Your task to perform on an android device: Open Google Chrome and open the bookmarks view Image 0: 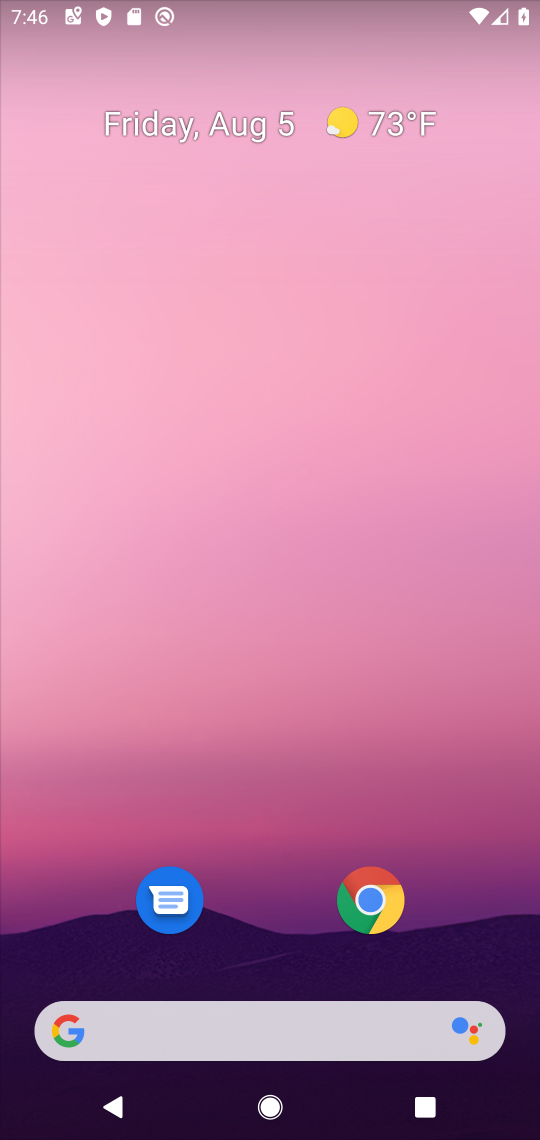
Step 0: click (363, 908)
Your task to perform on an android device: Open Google Chrome and open the bookmarks view Image 1: 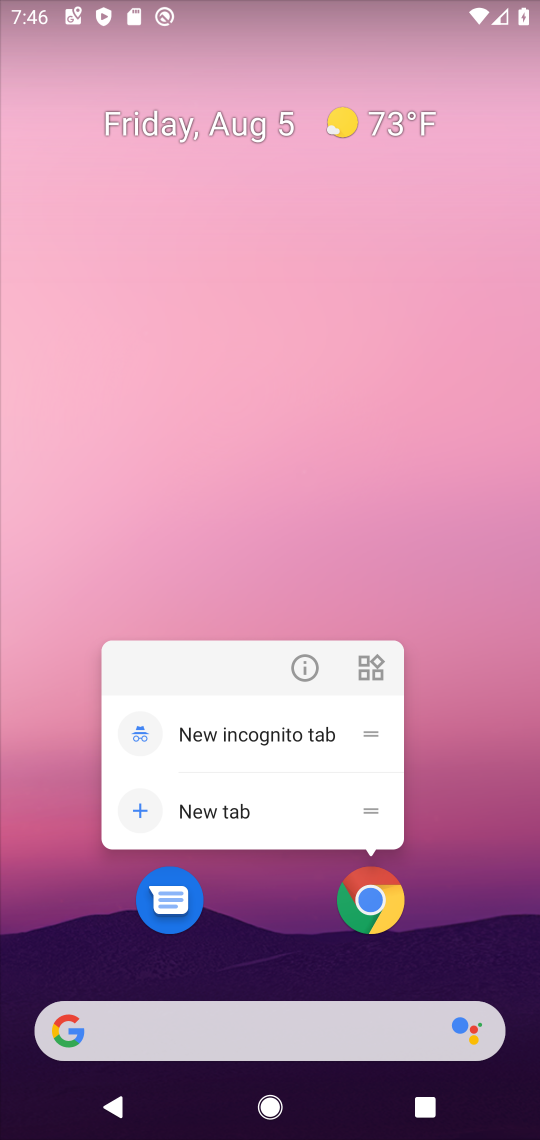
Step 1: click (361, 899)
Your task to perform on an android device: Open Google Chrome and open the bookmarks view Image 2: 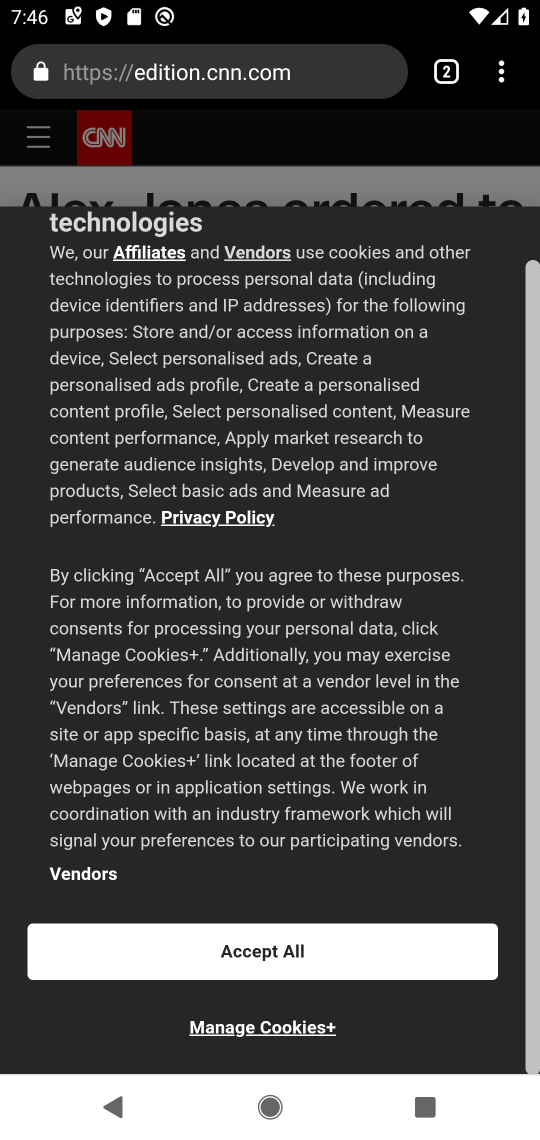
Step 2: click (504, 76)
Your task to perform on an android device: Open Google Chrome and open the bookmarks view Image 3: 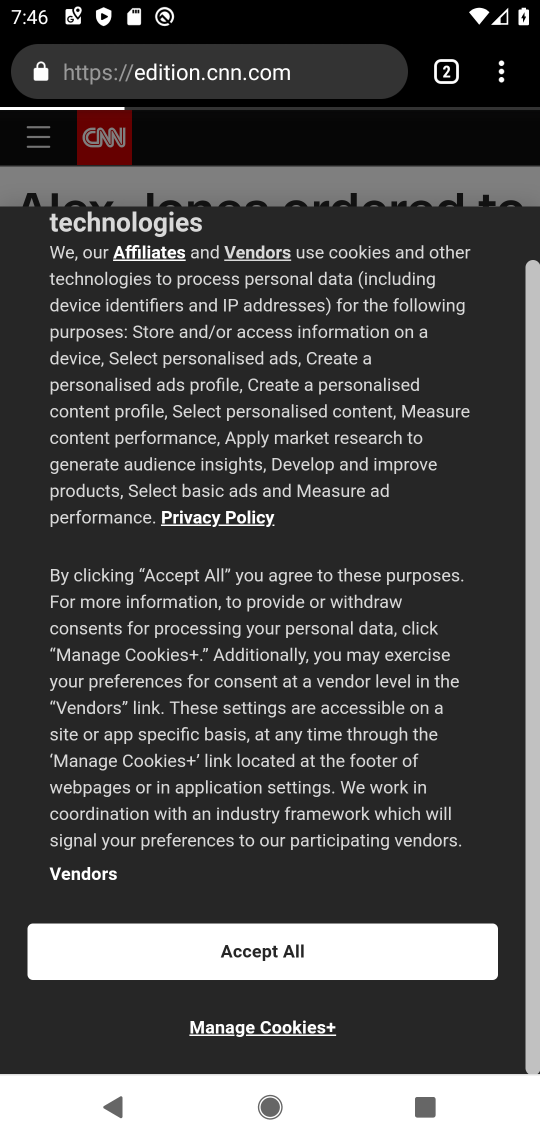
Step 3: click (504, 76)
Your task to perform on an android device: Open Google Chrome and open the bookmarks view Image 4: 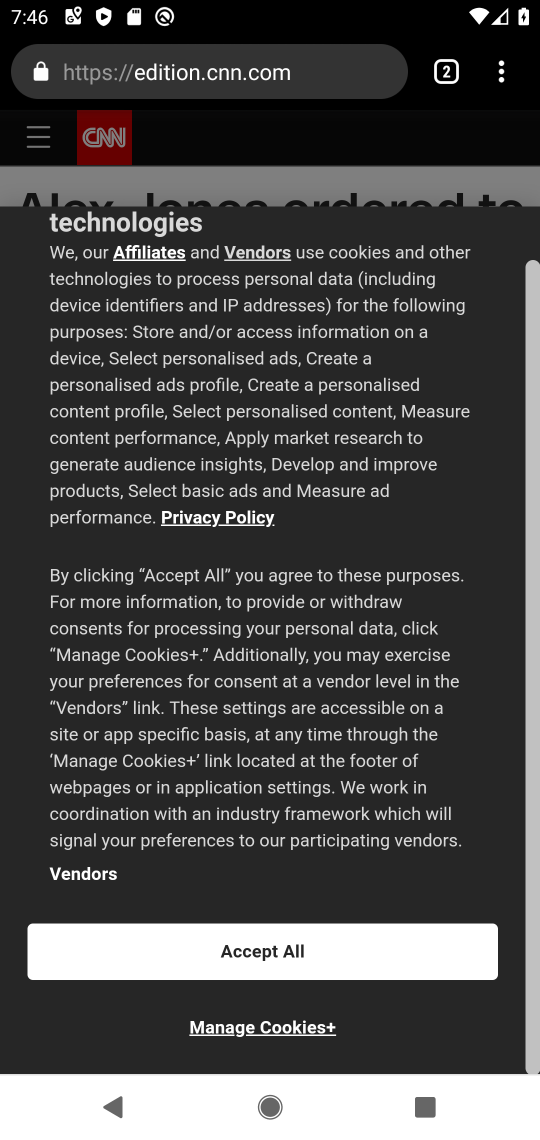
Step 4: click (496, 68)
Your task to perform on an android device: Open Google Chrome and open the bookmarks view Image 5: 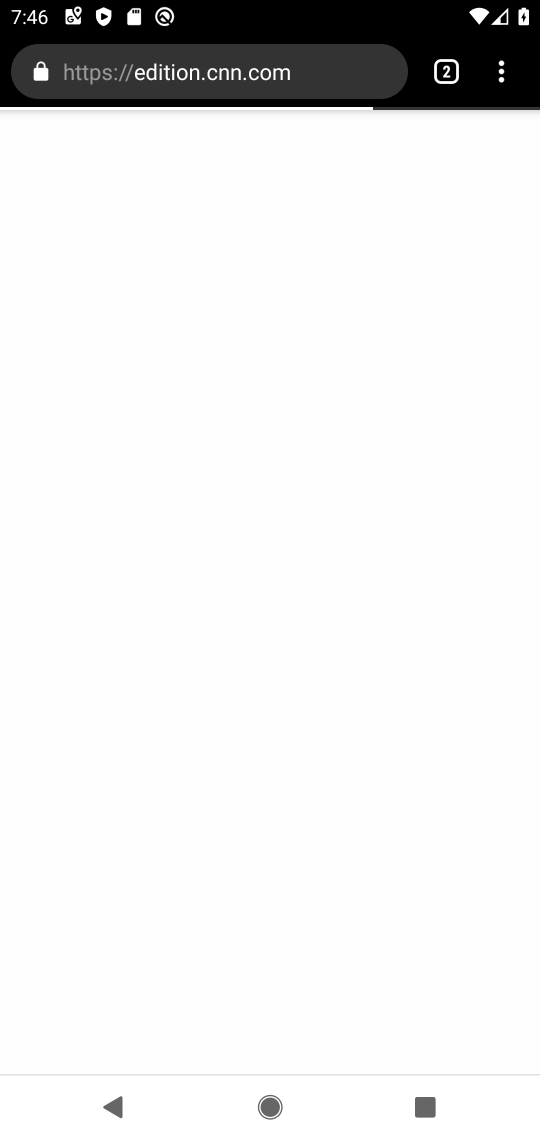
Step 5: click (496, 68)
Your task to perform on an android device: Open Google Chrome and open the bookmarks view Image 6: 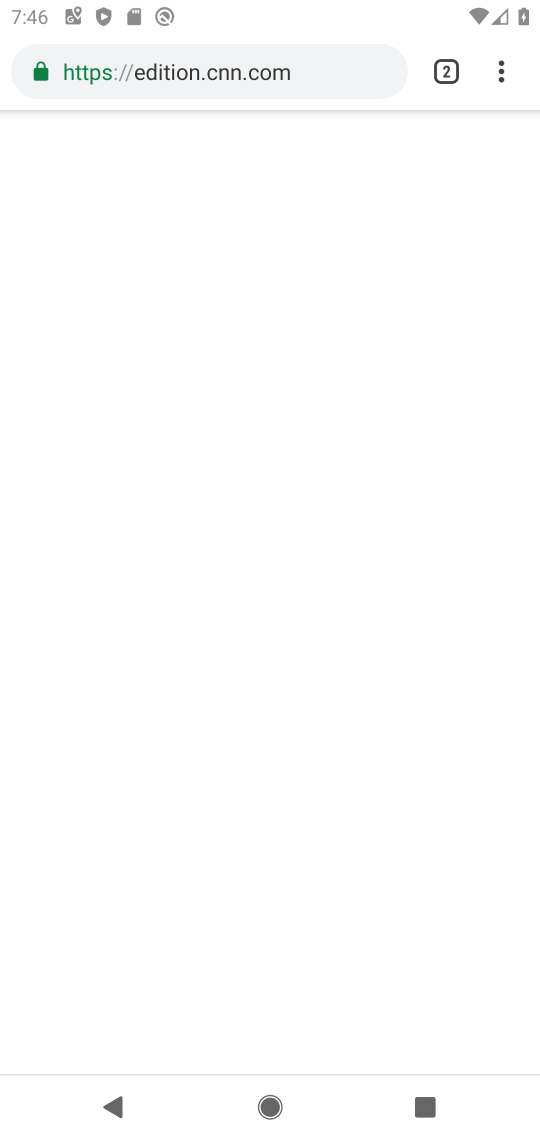
Step 6: click (496, 68)
Your task to perform on an android device: Open Google Chrome and open the bookmarks view Image 7: 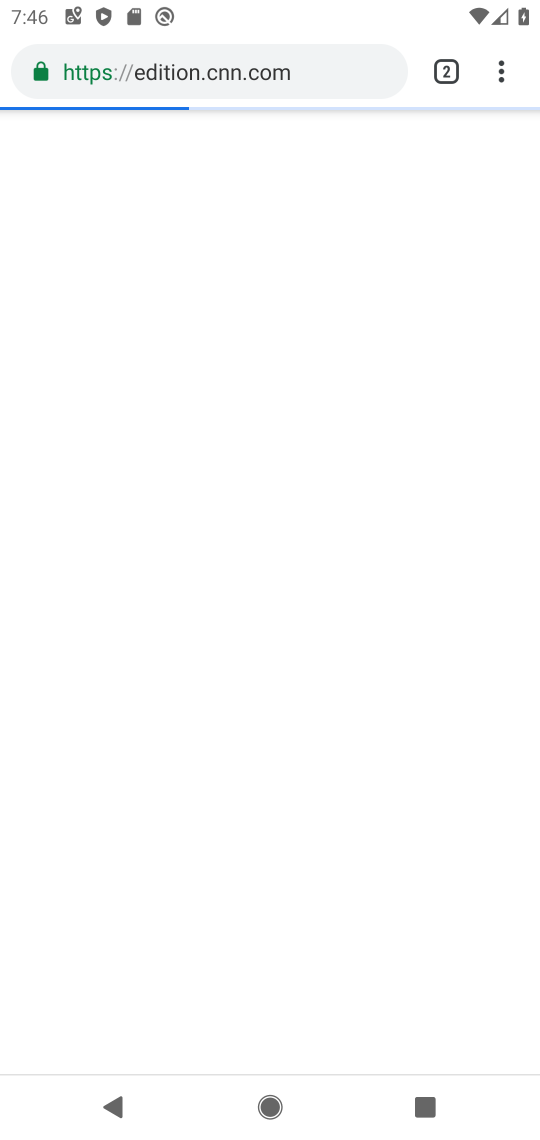
Step 7: click (503, 76)
Your task to perform on an android device: Open Google Chrome and open the bookmarks view Image 8: 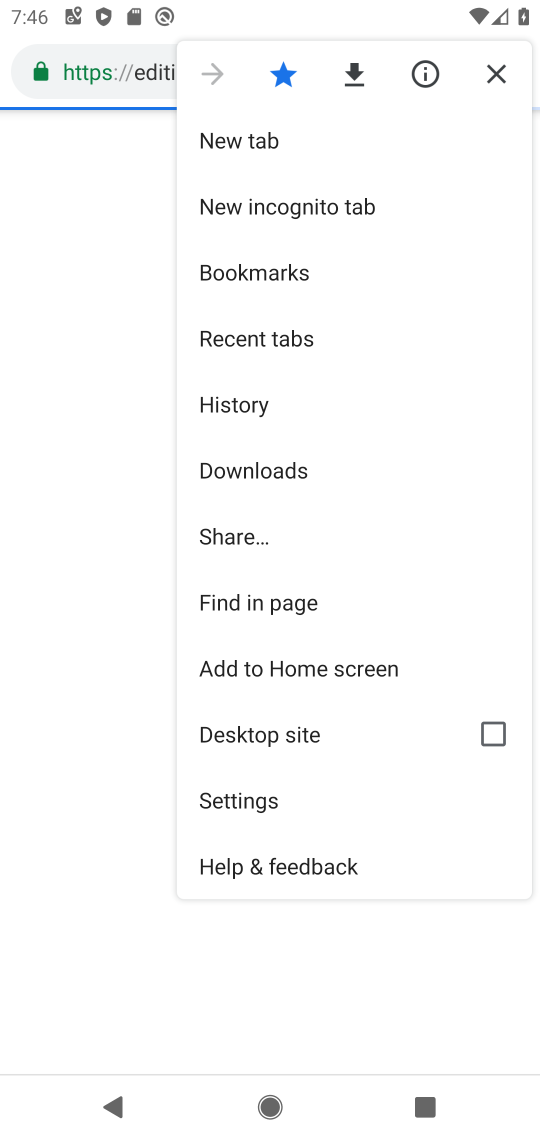
Step 8: click (229, 264)
Your task to perform on an android device: Open Google Chrome and open the bookmarks view Image 9: 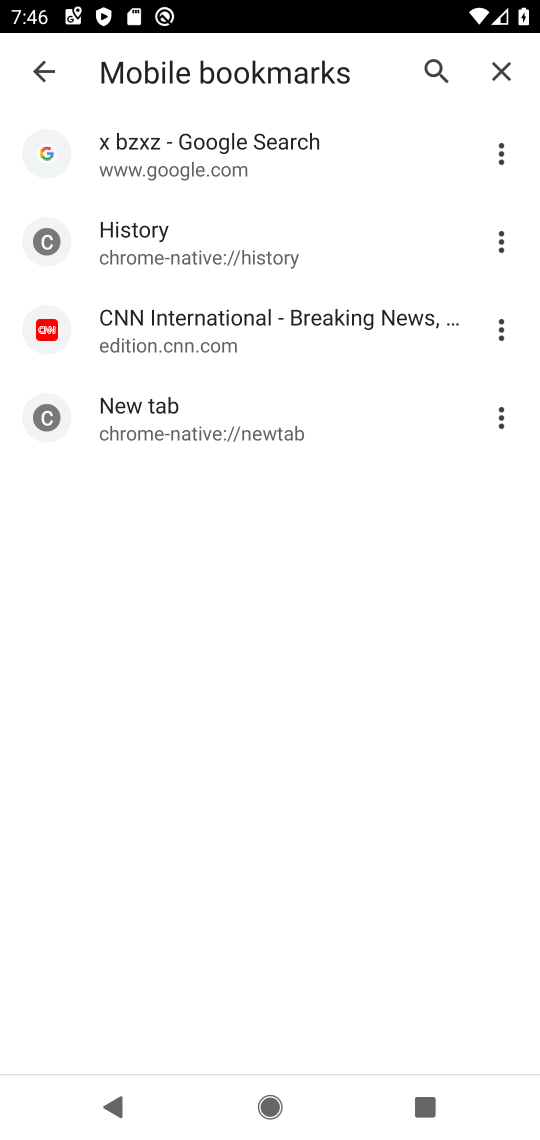
Step 9: task complete